Your task to perform on an android device: refresh tabs in the chrome app Image 0: 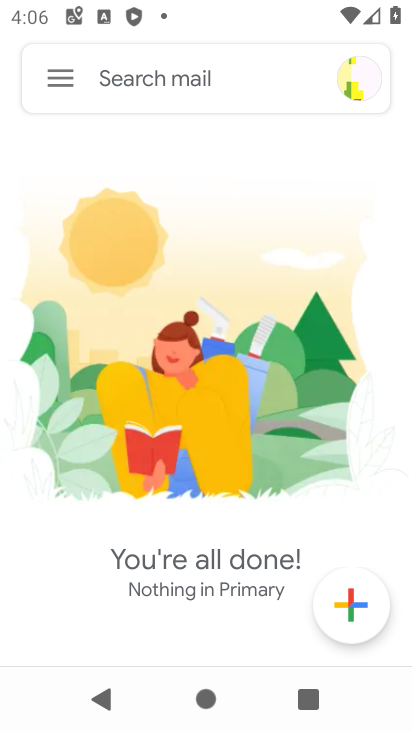
Step 0: press home button
Your task to perform on an android device: refresh tabs in the chrome app Image 1: 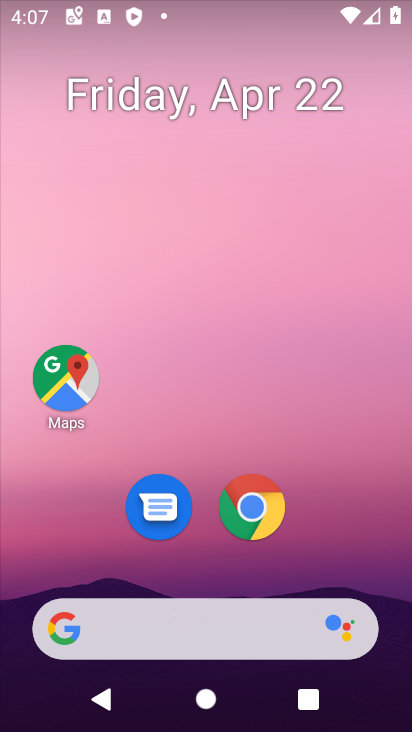
Step 1: click (268, 507)
Your task to perform on an android device: refresh tabs in the chrome app Image 2: 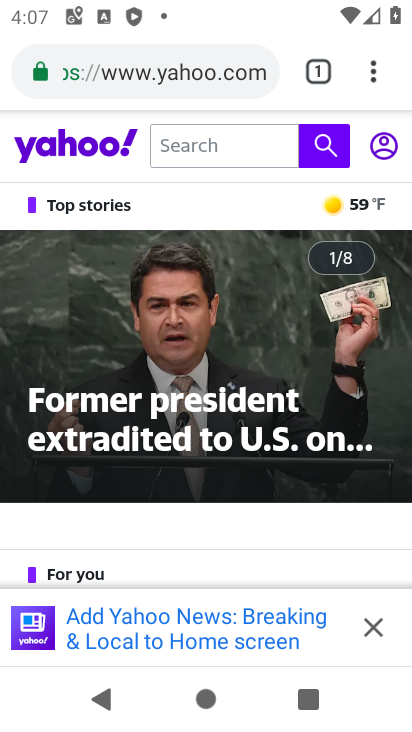
Step 2: click (371, 73)
Your task to perform on an android device: refresh tabs in the chrome app Image 3: 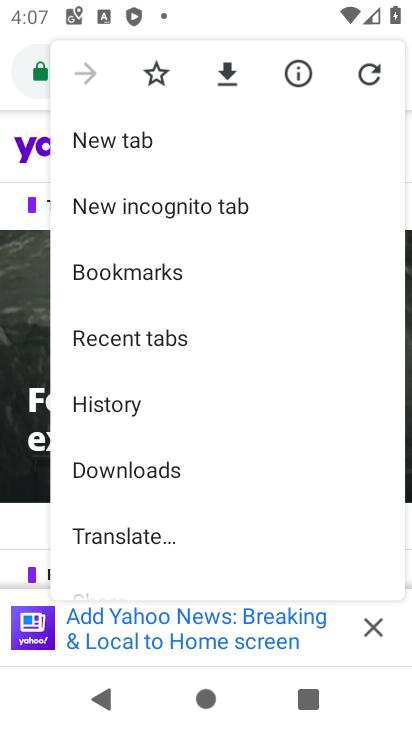
Step 3: click (371, 73)
Your task to perform on an android device: refresh tabs in the chrome app Image 4: 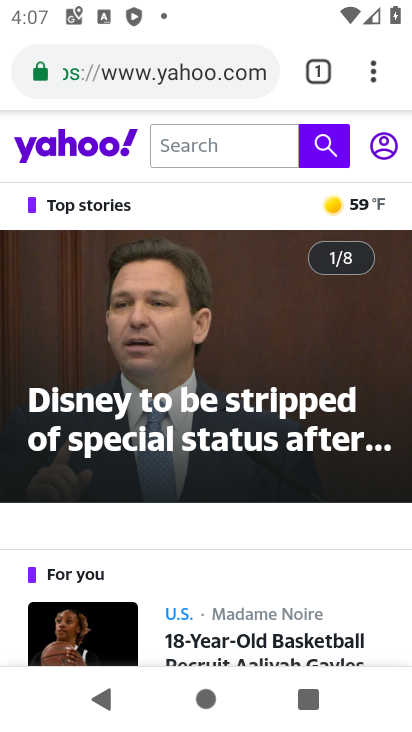
Step 4: task complete